Your task to perform on an android device: Search for pizza restaurants on Maps Image 0: 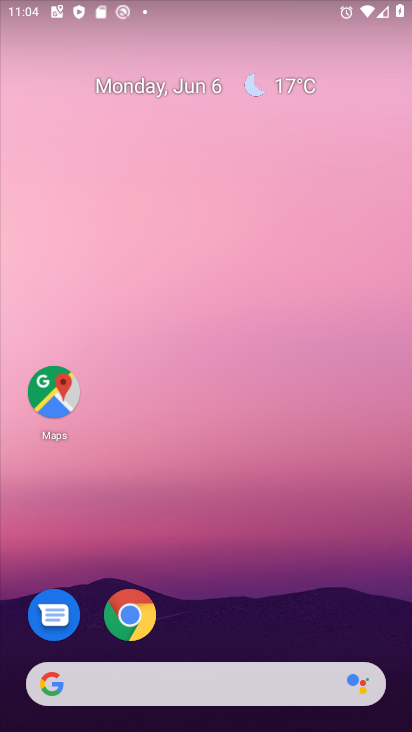
Step 0: press home button
Your task to perform on an android device: Search for pizza restaurants on Maps Image 1: 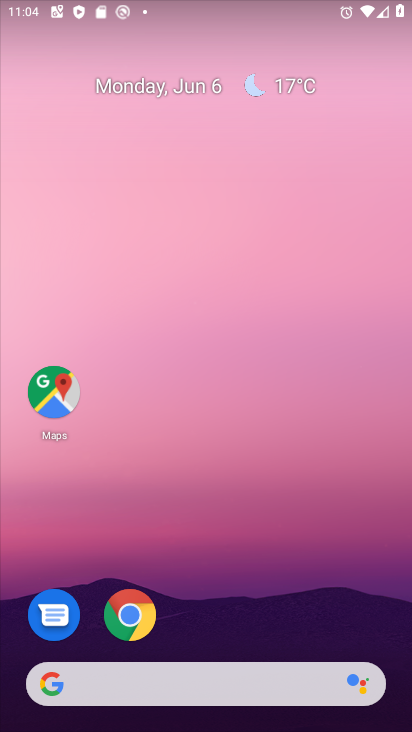
Step 1: click (53, 383)
Your task to perform on an android device: Search for pizza restaurants on Maps Image 2: 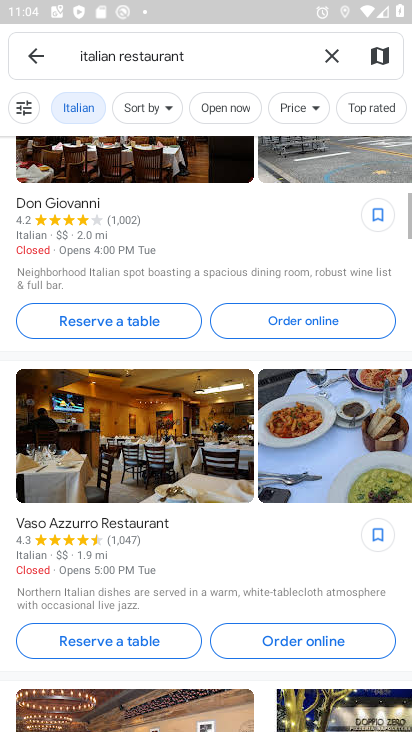
Step 2: click (328, 47)
Your task to perform on an android device: Search for pizza restaurants on Maps Image 3: 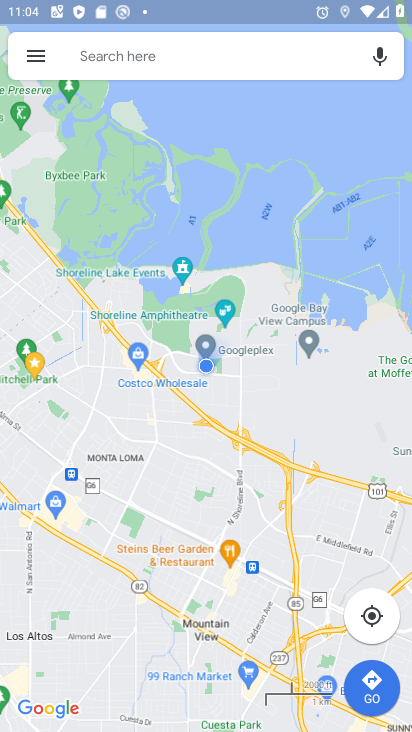
Step 3: click (129, 56)
Your task to perform on an android device: Search for pizza restaurants on Maps Image 4: 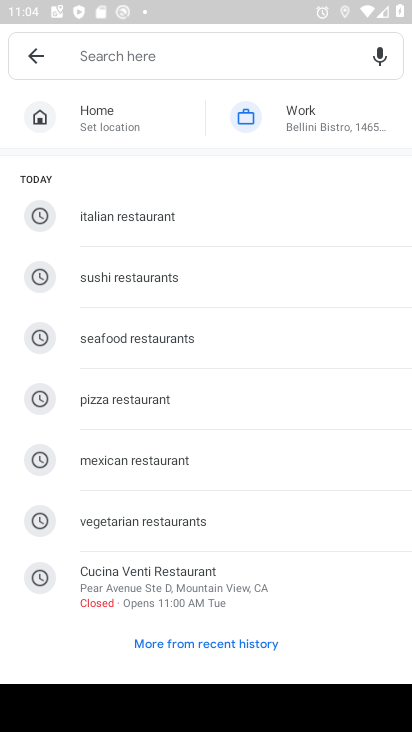
Step 4: click (131, 398)
Your task to perform on an android device: Search for pizza restaurants on Maps Image 5: 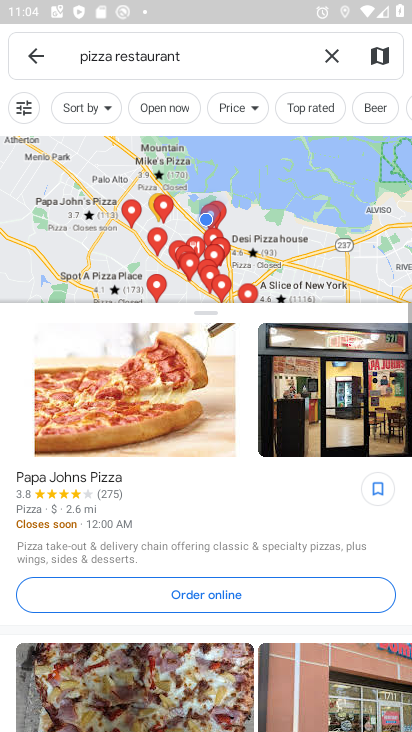
Step 5: task complete